Your task to perform on an android device: open chrome privacy settings Image 0: 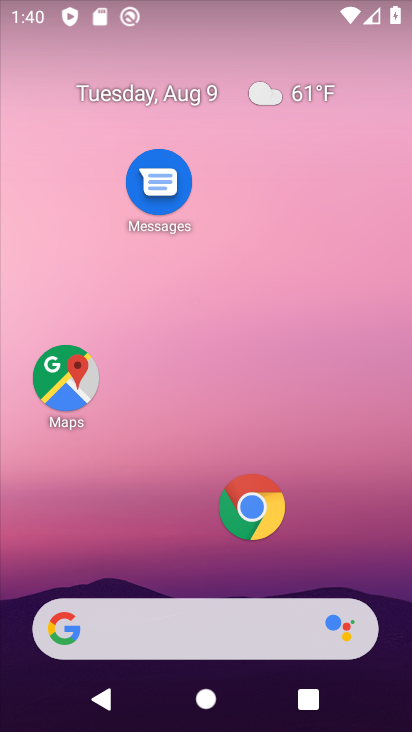
Step 0: click (236, 499)
Your task to perform on an android device: open chrome privacy settings Image 1: 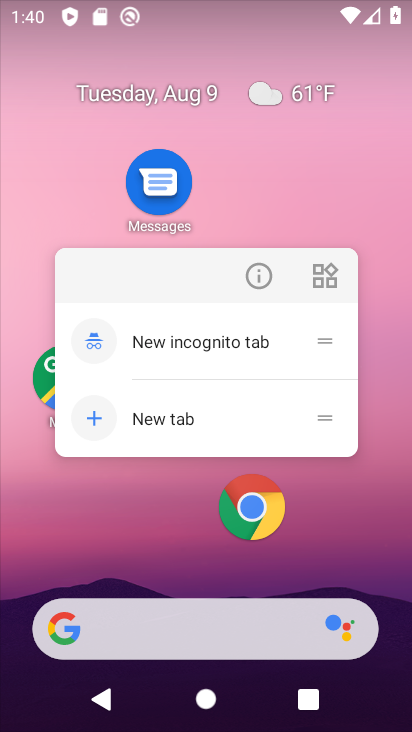
Step 1: click (243, 499)
Your task to perform on an android device: open chrome privacy settings Image 2: 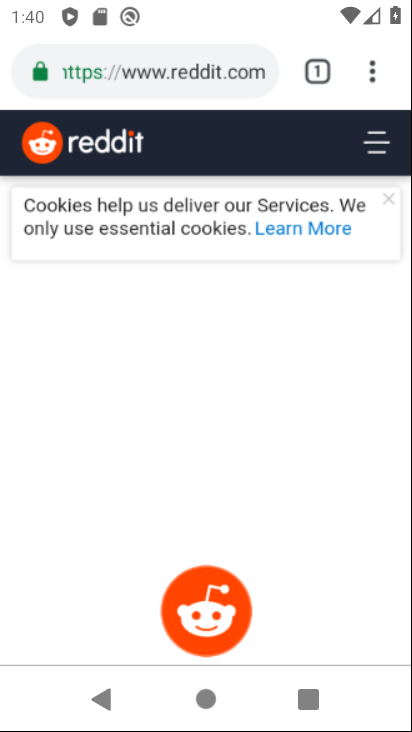
Step 2: drag from (375, 73) to (155, 502)
Your task to perform on an android device: open chrome privacy settings Image 3: 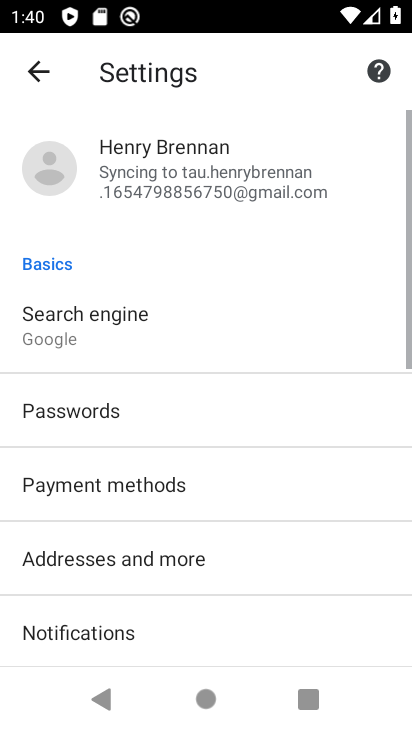
Step 3: drag from (185, 607) to (327, 47)
Your task to perform on an android device: open chrome privacy settings Image 4: 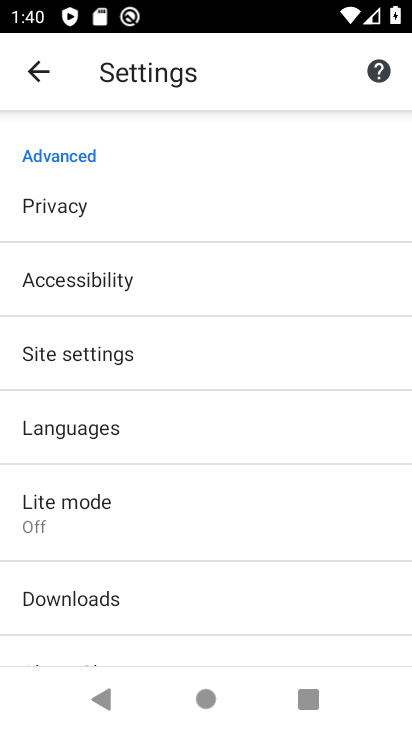
Step 4: click (66, 207)
Your task to perform on an android device: open chrome privacy settings Image 5: 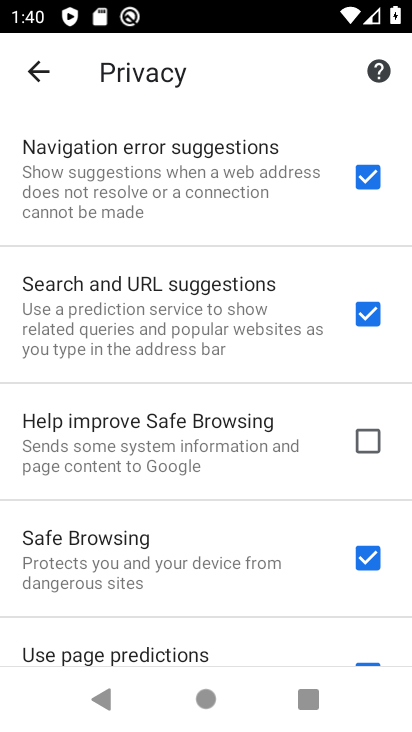
Step 5: task complete